Your task to perform on an android device: Open sound settings Image 0: 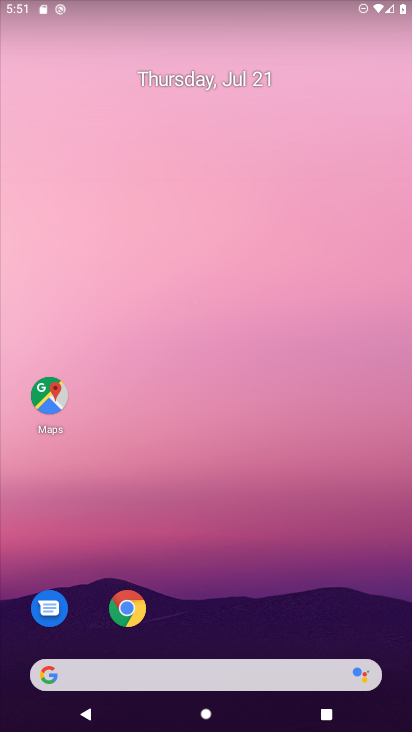
Step 0: drag from (187, 675) to (192, 226)
Your task to perform on an android device: Open sound settings Image 1: 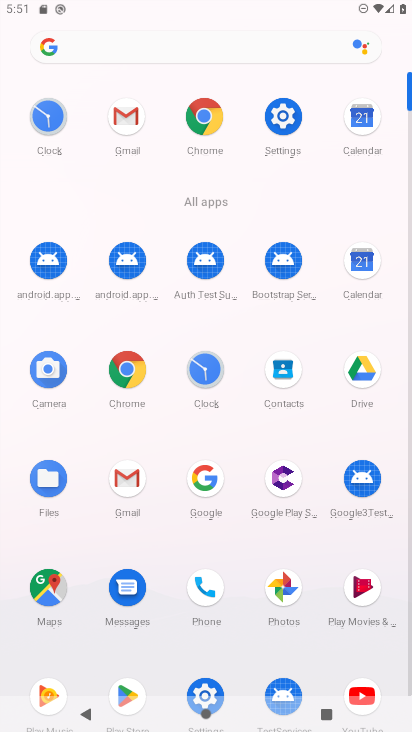
Step 1: click (282, 113)
Your task to perform on an android device: Open sound settings Image 2: 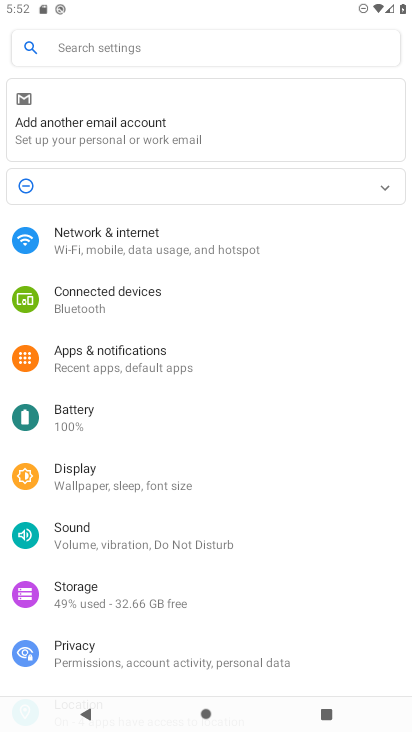
Step 2: click (71, 540)
Your task to perform on an android device: Open sound settings Image 3: 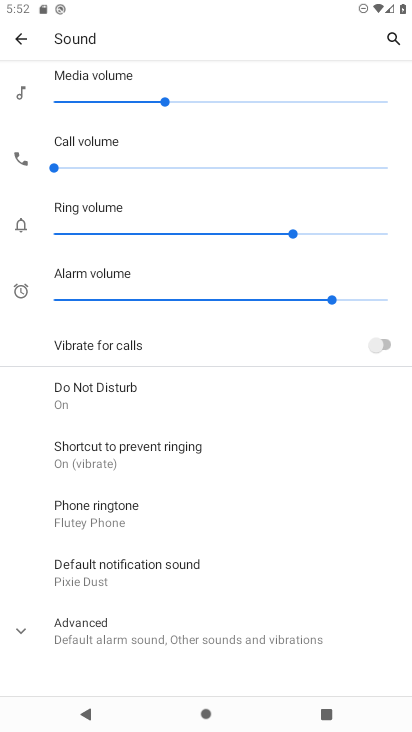
Step 3: task complete